Your task to perform on an android device: turn on location history Image 0: 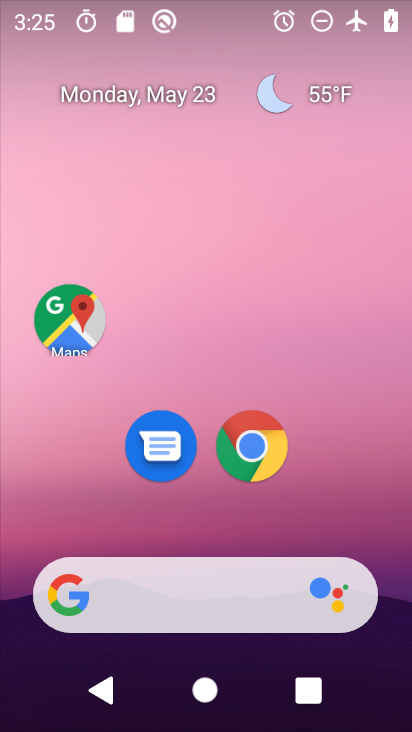
Step 0: drag from (210, 502) to (174, 129)
Your task to perform on an android device: turn on location history Image 1: 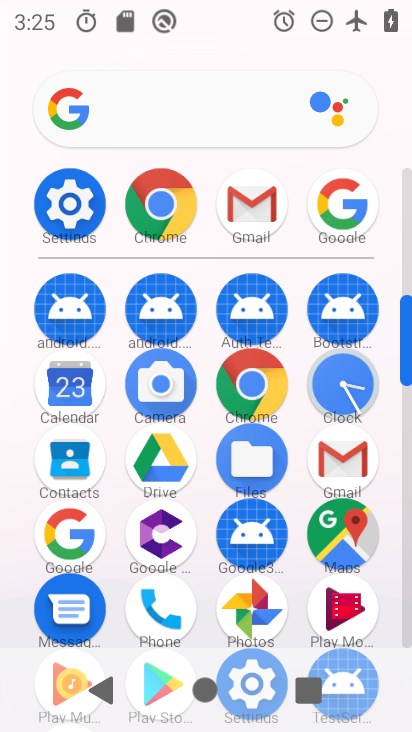
Step 1: click (77, 211)
Your task to perform on an android device: turn on location history Image 2: 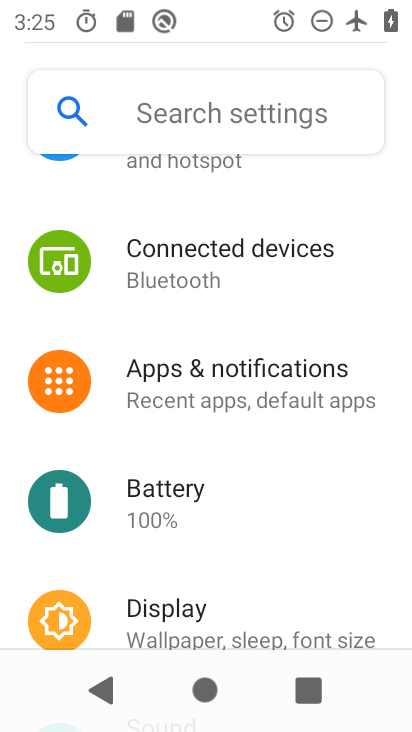
Step 2: drag from (241, 521) to (208, 235)
Your task to perform on an android device: turn on location history Image 3: 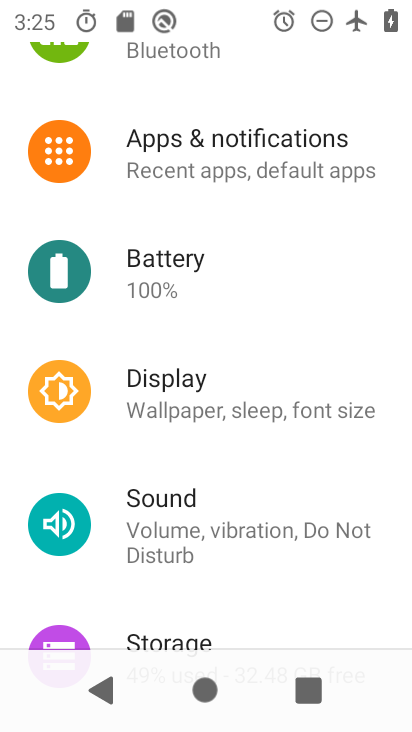
Step 3: drag from (269, 496) to (234, 242)
Your task to perform on an android device: turn on location history Image 4: 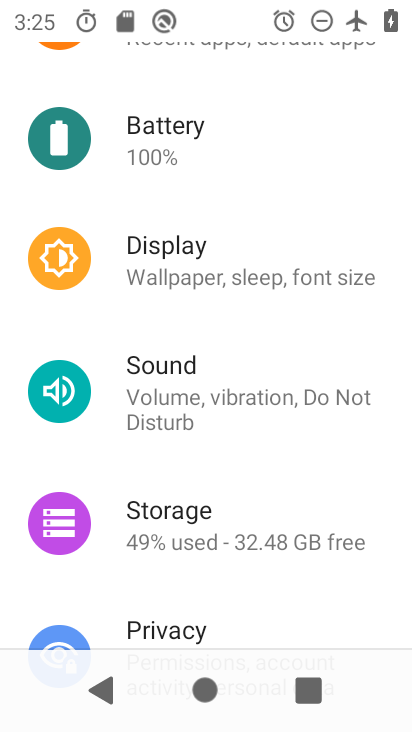
Step 4: drag from (231, 521) to (221, 303)
Your task to perform on an android device: turn on location history Image 5: 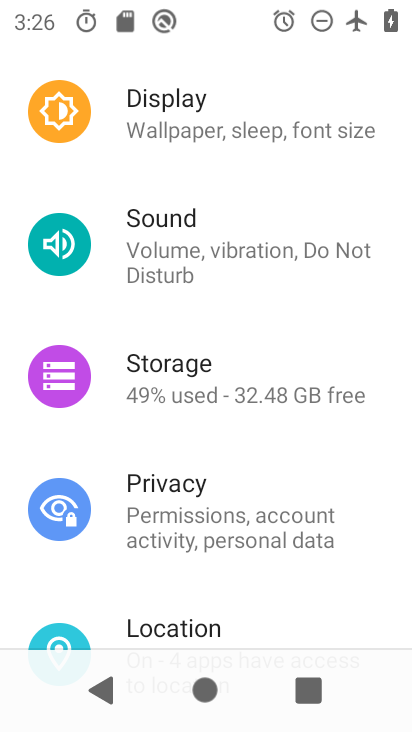
Step 5: click (238, 599)
Your task to perform on an android device: turn on location history Image 6: 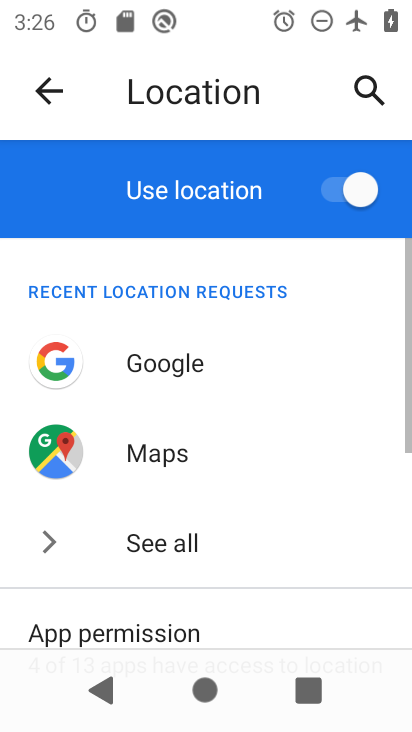
Step 6: drag from (232, 563) to (220, 241)
Your task to perform on an android device: turn on location history Image 7: 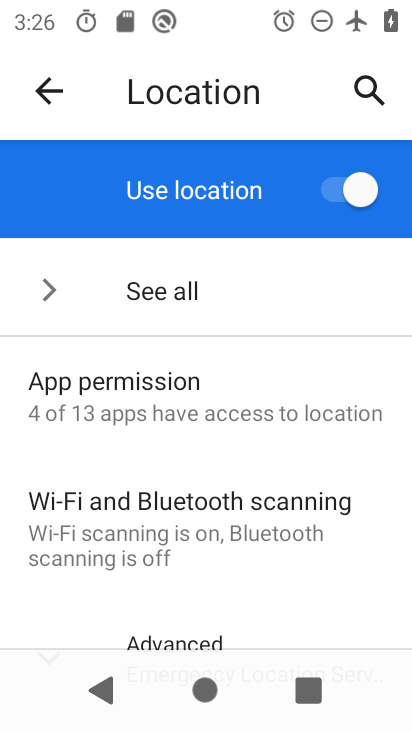
Step 7: drag from (224, 554) to (205, 316)
Your task to perform on an android device: turn on location history Image 8: 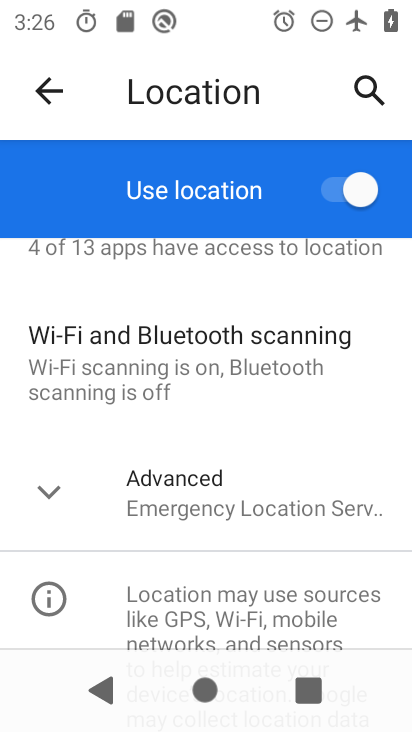
Step 8: click (202, 499)
Your task to perform on an android device: turn on location history Image 9: 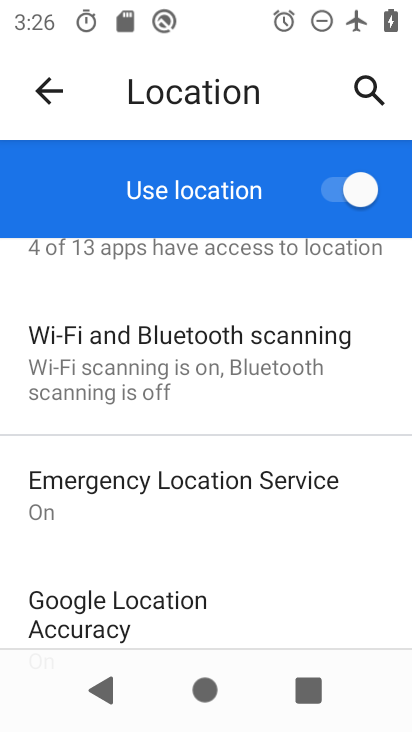
Step 9: drag from (201, 598) to (197, 354)
Your task to perform on an android device: turn on location history Image 10: 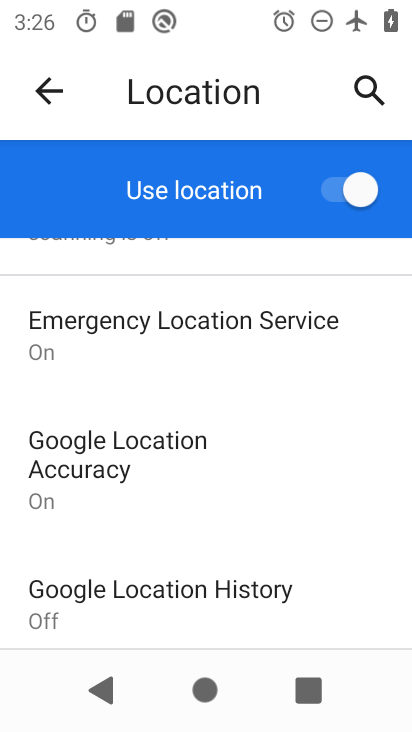
Step 10: click (170, 593)
Your task to perform on an android device: turn on location history Image 11: 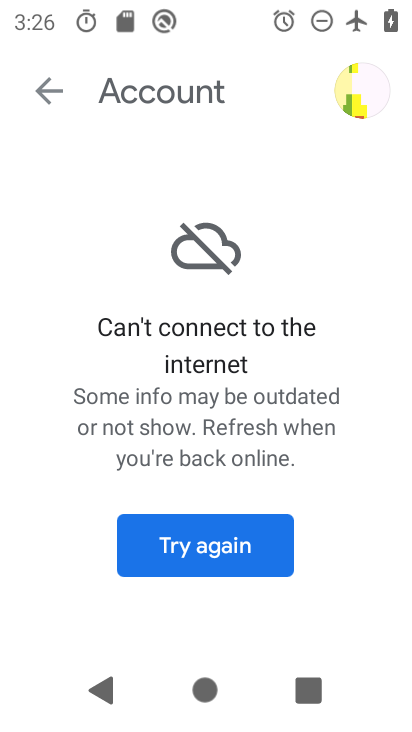
Step 11: click (285, 515)
Your task to perform on an android device: turn on location history Image 12: 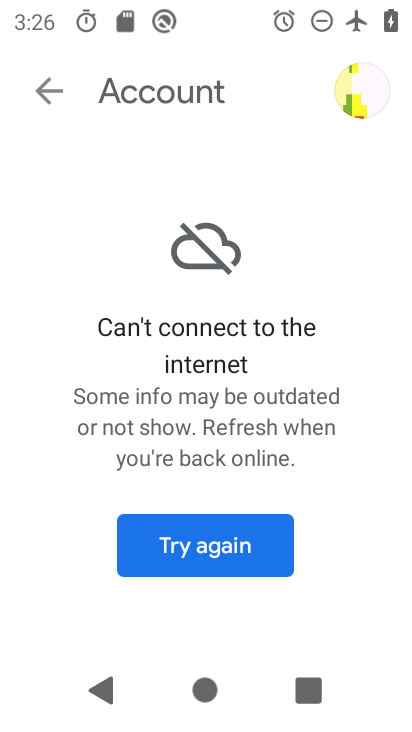
Step 12: task complete